Your task to perform on an android device: Search for a new desk on IKEA Image 0: 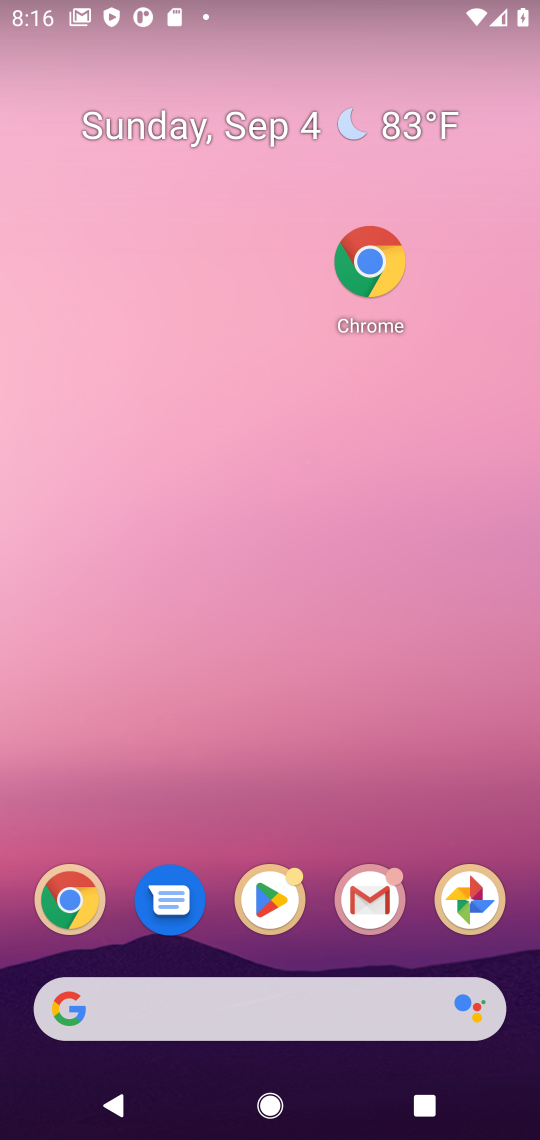
Step 0: drag from (321, 941) to (179, 54)
Your task to perform on an android device: Search for a new desk on IKEA Image 1: 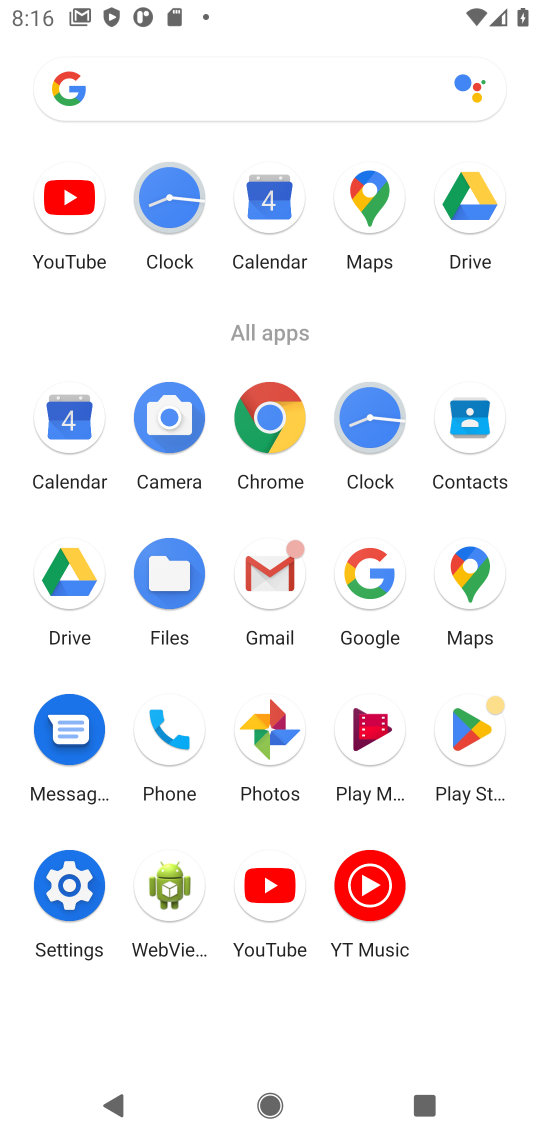
Step 1: click (275, 447)
Your task to perform on an android device: Search for a new desk on IKEA Image 2: 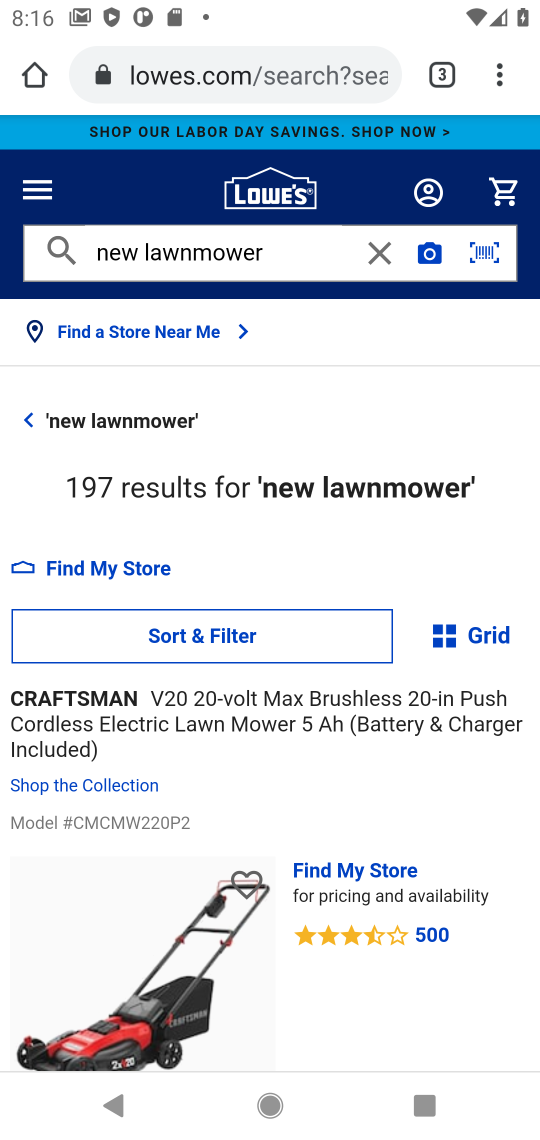
Step 2: click (438, 76)
Your task to perform on an android device: Search for a new desk on IKEA Image 3: 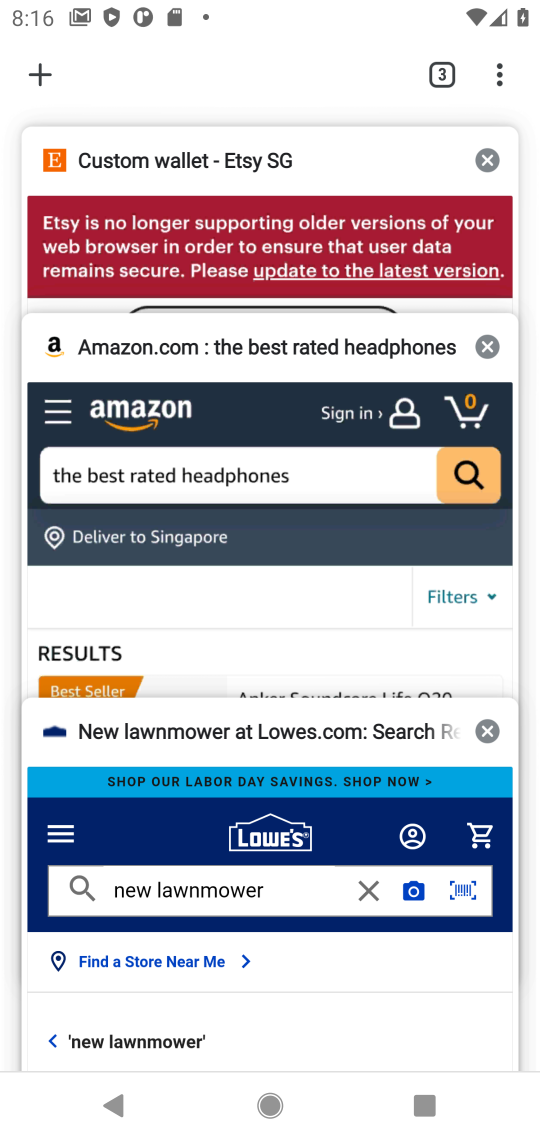
Step 3: click (28, 73)
Your task to perform on an android device: Search for a new desk on IKEA Image 4: 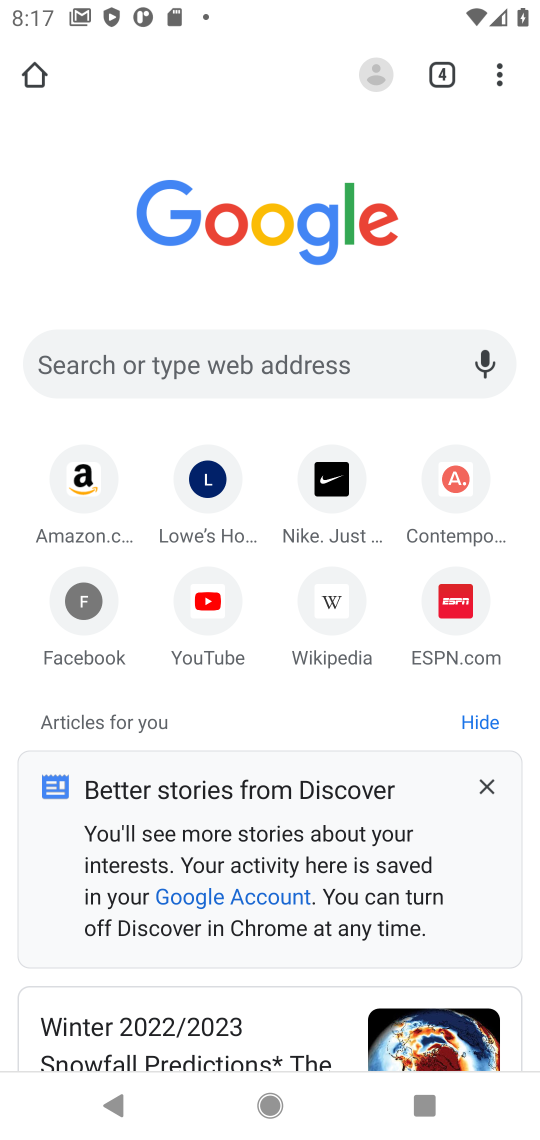
Step 4: click (194, 369)
Your task to perform on an android device: Search for a new desk on IKEA Image 5: 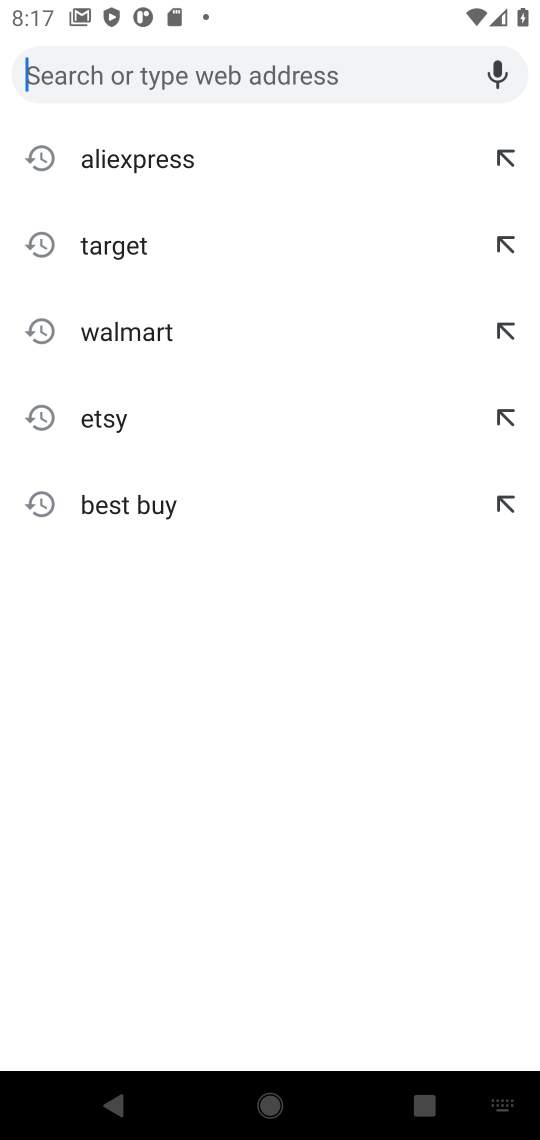
Step 5: type "IKEA"
Your task to perform on an android device: Search for a new desk on IKEA Image 6: 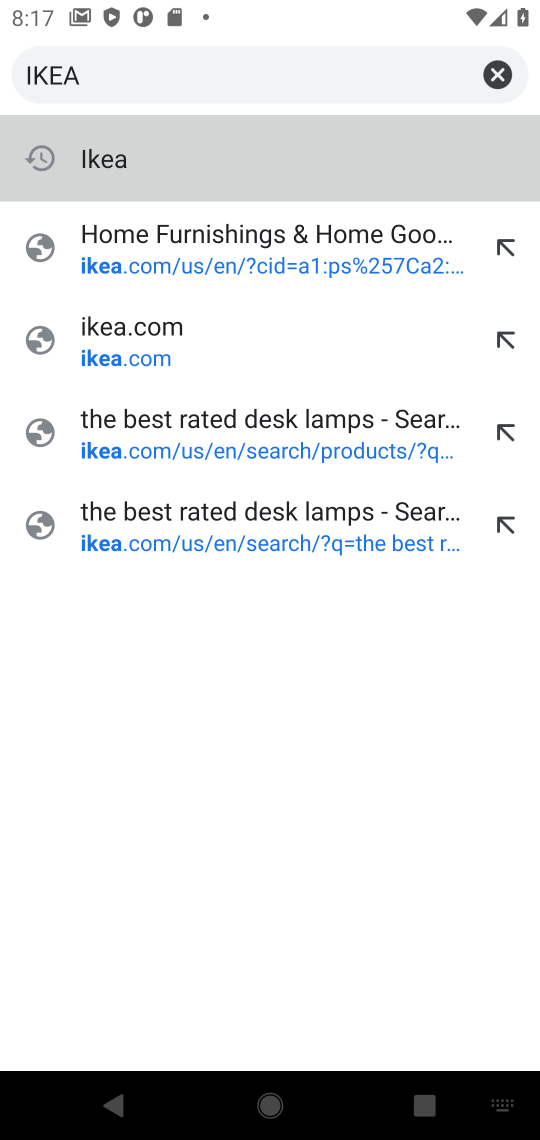
Step 6: click (287, 167)
Your task to perform on an android device: Search for a new desk on IKEA Image 7: 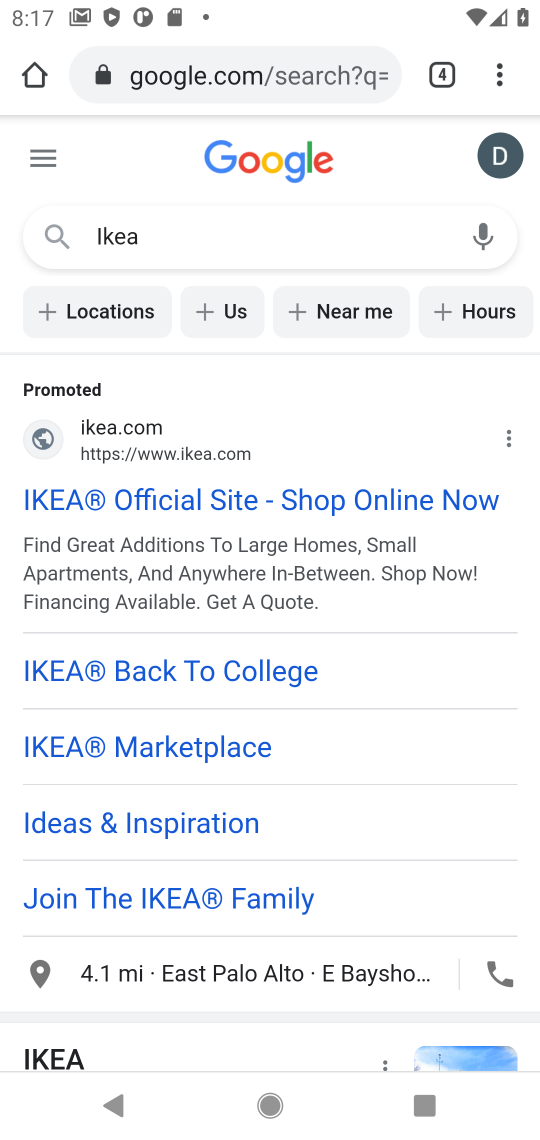
Step 7: click (160, 490)
Your task to perform on an android device: Search for a new desk on IKEA Image 8: 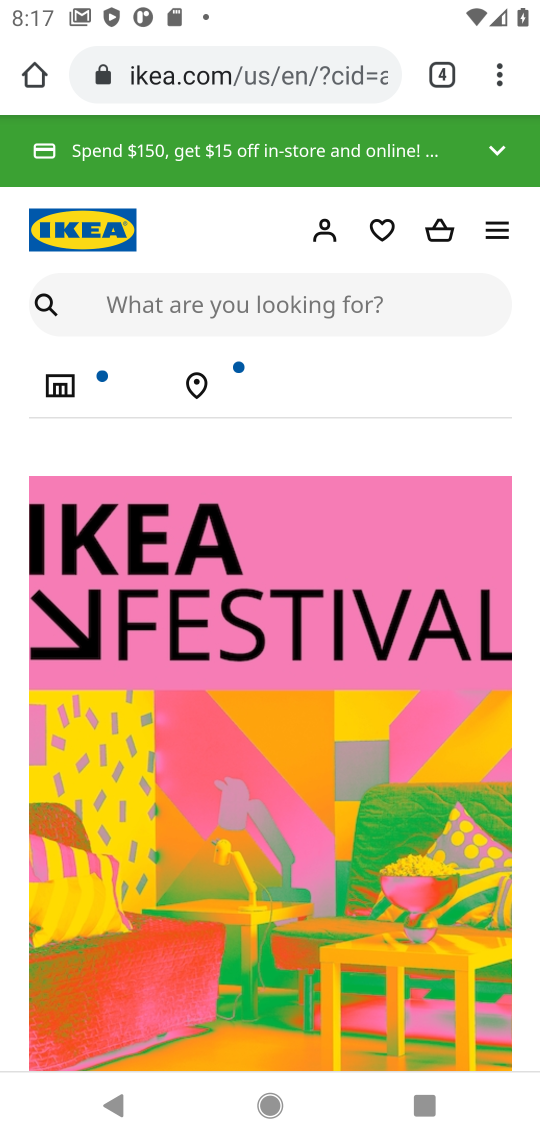
Step 8: click (277, 323)
Your task to perform on an android device: Search for a new desk on IKEA Image 9: 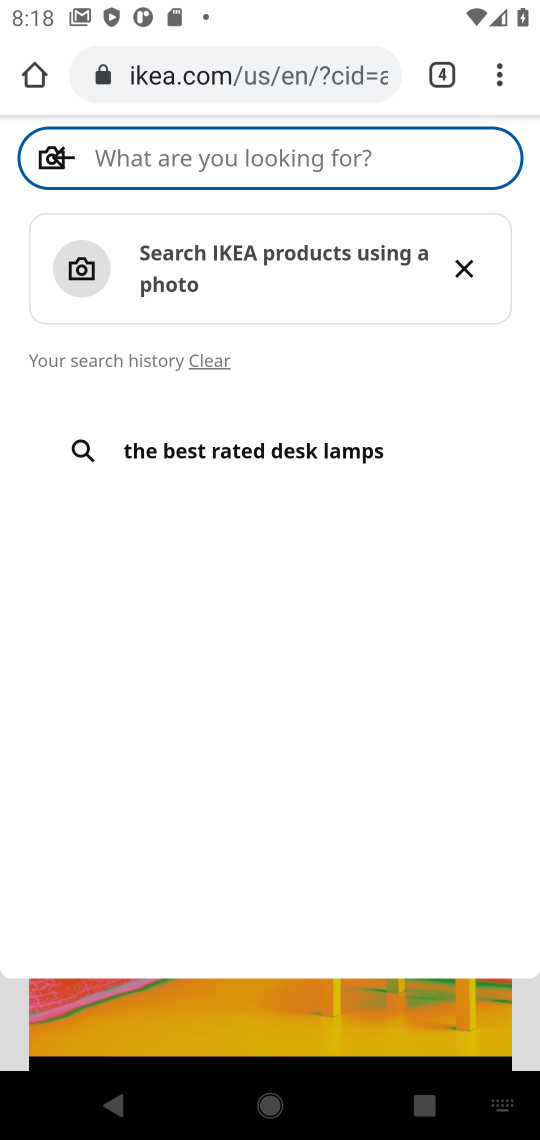
Step 9: click (508, 333)
Your task to perform on an android device: Search for a new desk on IKEA Image 10: 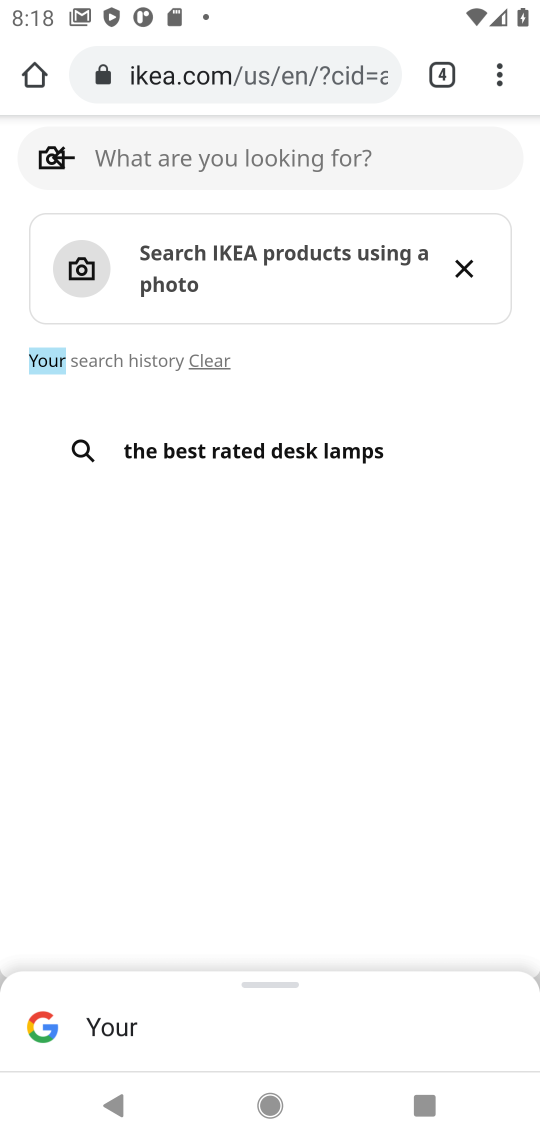
Step 10: type "new desk"
Your task to perform on an android device: Search for a new desk on IKEA Image 11: 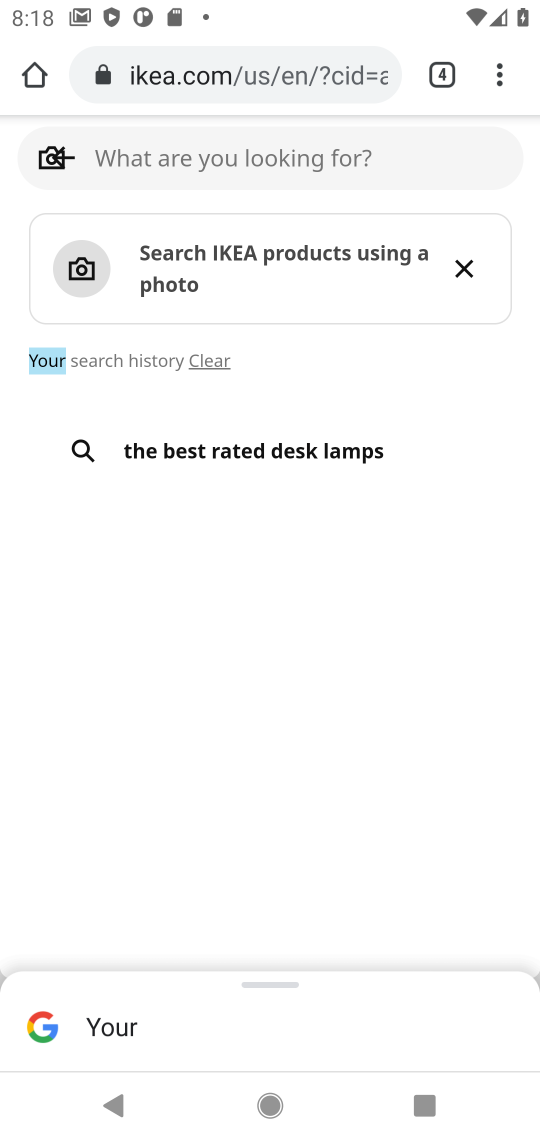
Step 11: click (508, 333)
Your task to perform on an android device: Search for a new desk on IKEA Image 12: 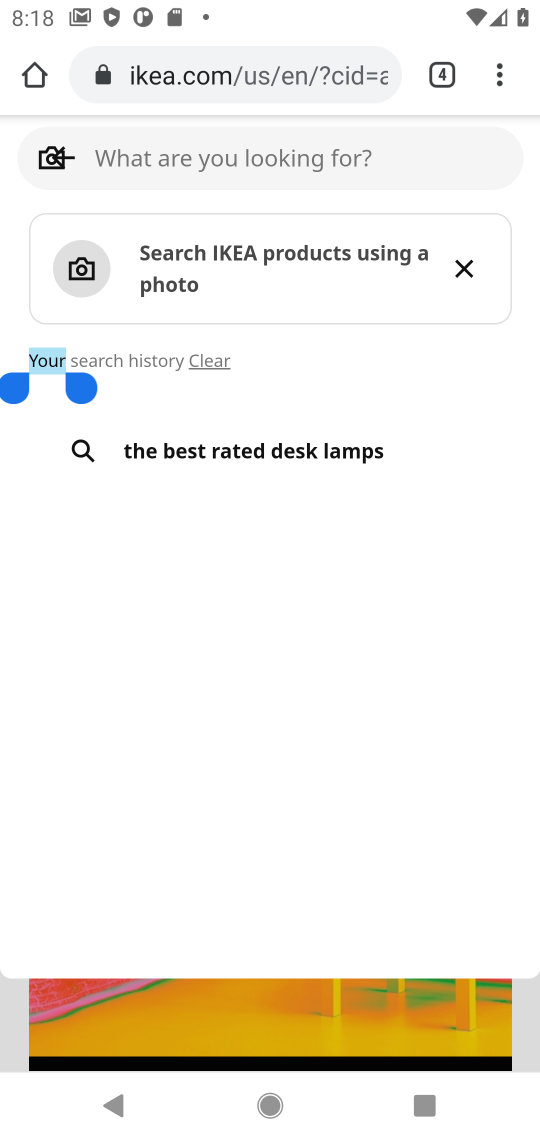
Step 12: click (233, 164)
Your task to perform on an android device: Search for a new desk on IKEA Image 13: 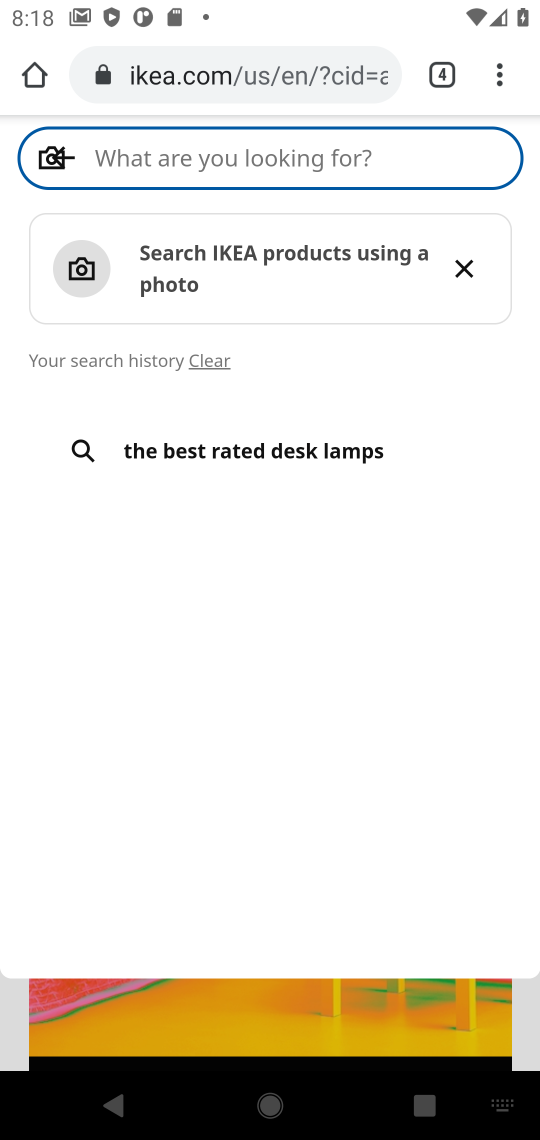
Step 13: type "new desk"
Your task to perform on an android device: Search for a new desk on IKEA Image 14: 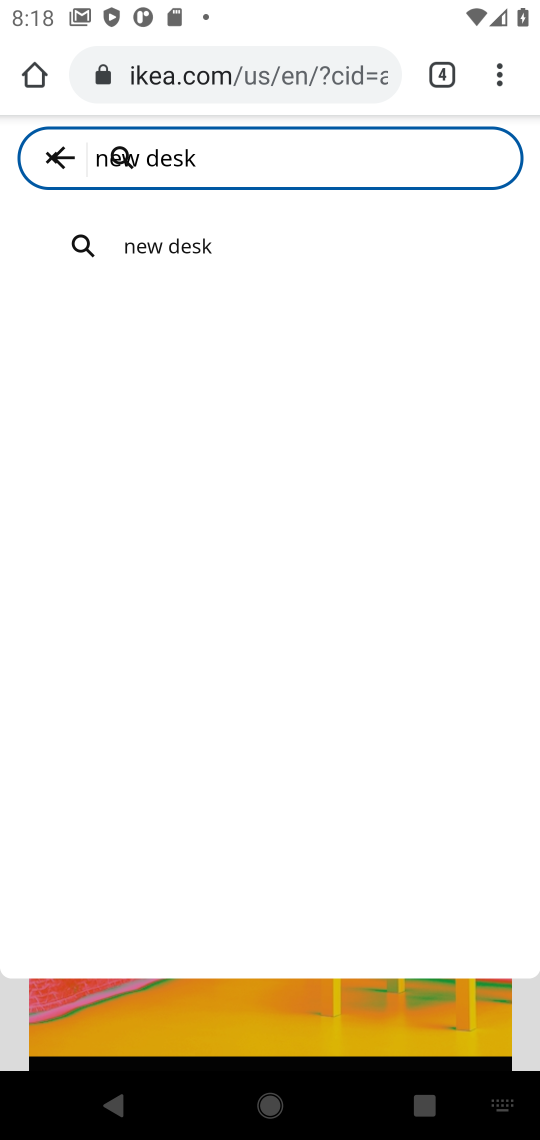
Step 14: click (147, 233)
Your task to perform on an android device: Search for a new desk on IKEA Image 15: 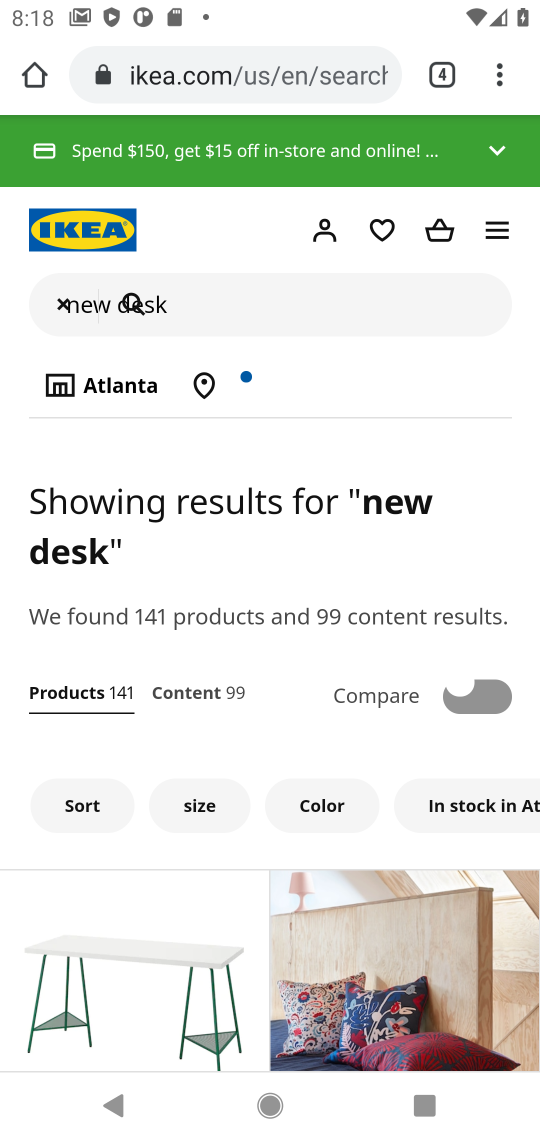
Step 15: task complete